Your task to perform on an android device: Open calendar and show me the fourth week of next month Image 0: 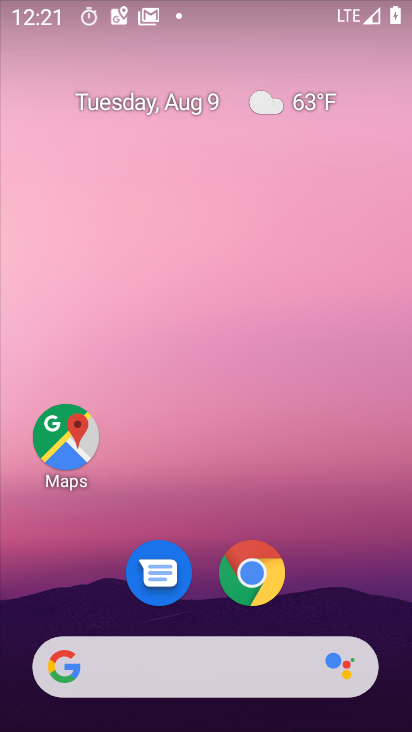
Step 0: drag from (223, 646) to (189, 174)
Your task to perform on an android device: Open calendar and show me the fourth week of next month Image 1: 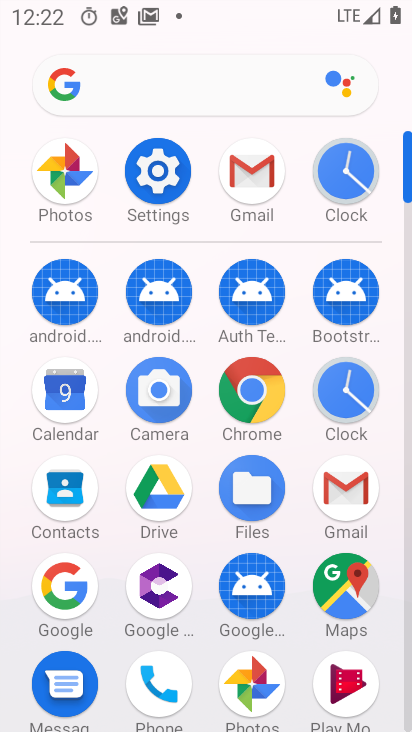
Step 1: click (63, 404)
Your task to perform on an android device: Open calendar and show me the fourth week of next month Image 2: 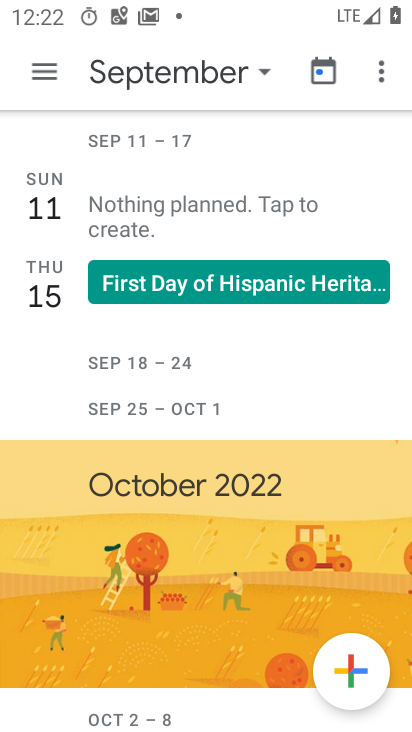
Step 2: click (211, 76)
Your task to perform on an android device: Open calendar and show me the fourth week of next month Image 3: 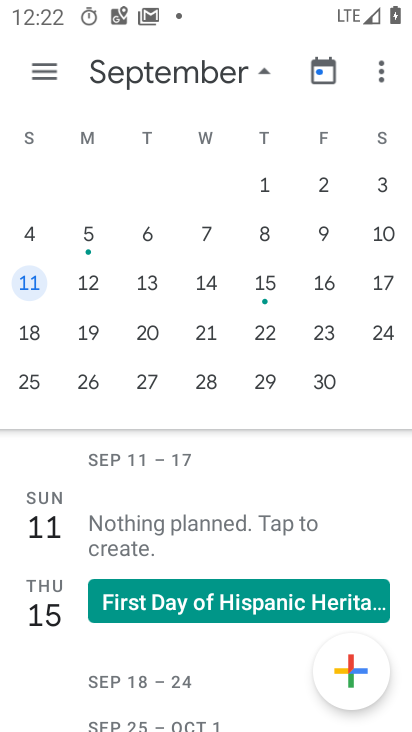
Step 3: click (30, 337)
Your task to perform on an android device: Open calendar and show me the fourth week of next month Image 4: 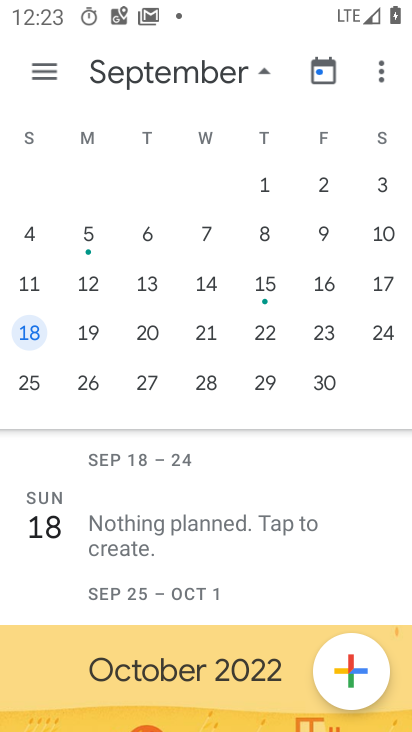
Step 4: task complete